Your task to perform on an android device: turn off translation in the chrome app Image 0: 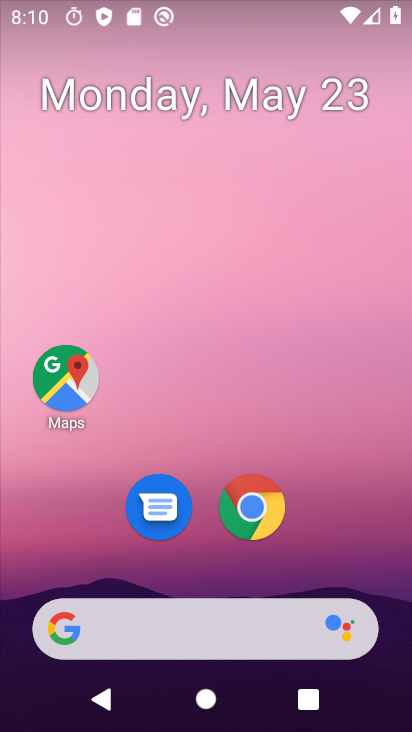
Step 0: click (246, 510)
Your task to perform on an android device: turn off translation in the chrome app Image 1: 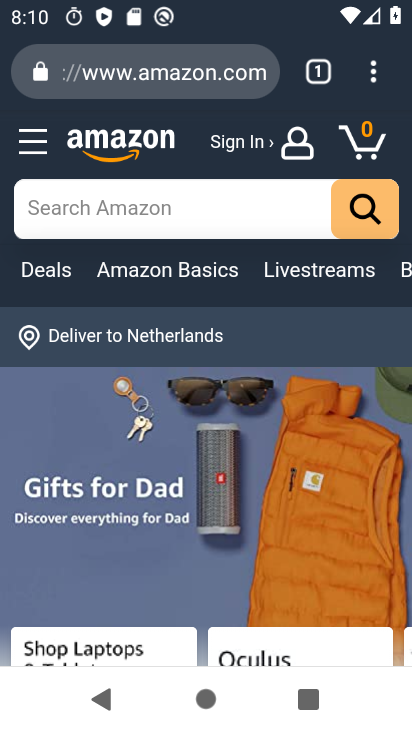
Step 1: drag from (389, 71) to (151, 501)
Your task to perform on an android device: turn off translation in the chrome app Image 2: 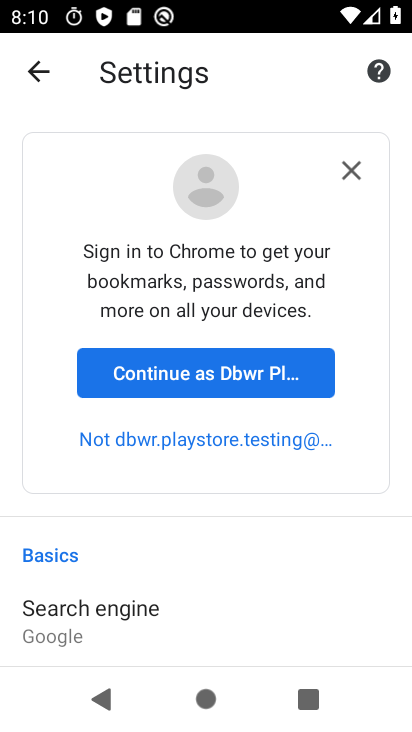
Step 2: drag from (140, 612) to (132, 312)
Your task to perform on an android device: turn off translation in the chrome app Image 3: 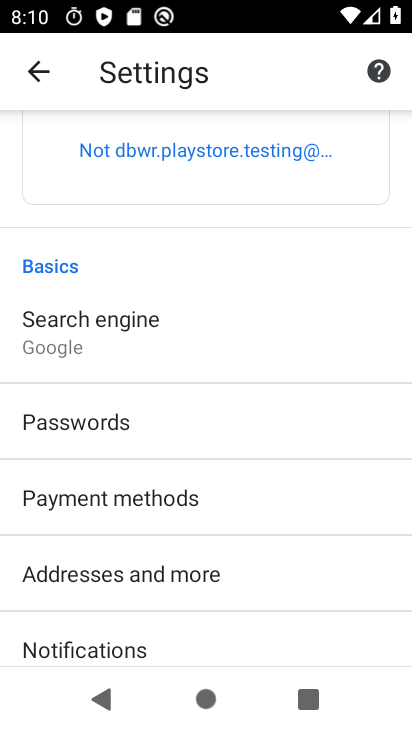
Step 3: drag from (180, 559) to (205, 211)
Your task to perform on an android device: turn off translation in the chrome app Image 4: 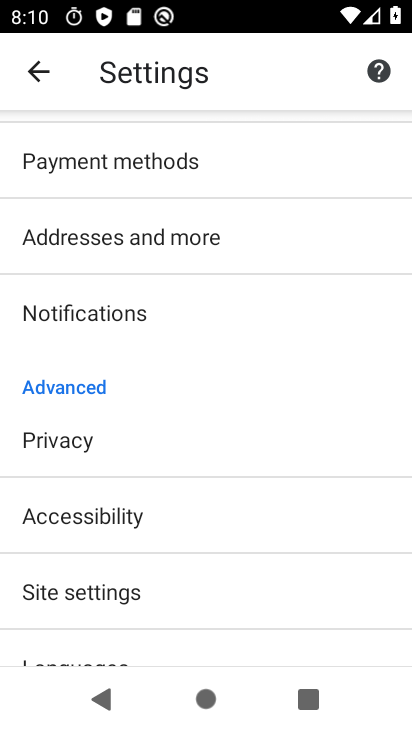
Step 4: drag from (222, 564) to (205, 170)
Your task to perform on an android device: turn off translation in the chrome app Image 5: 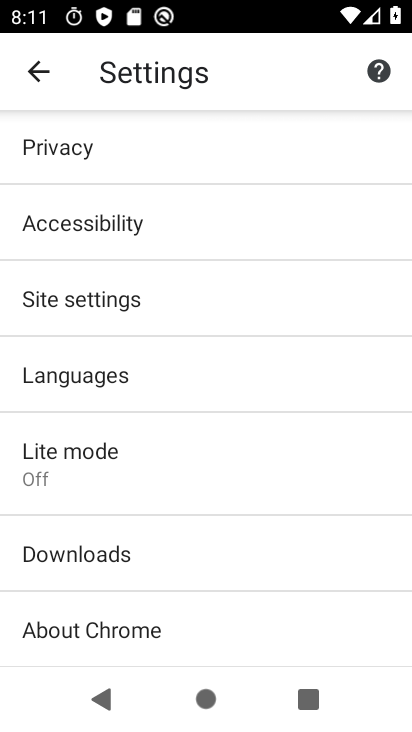
Step 5: click (107, 381)
Your task to perform on an android device: turn off translation in the chrome app Image 6: 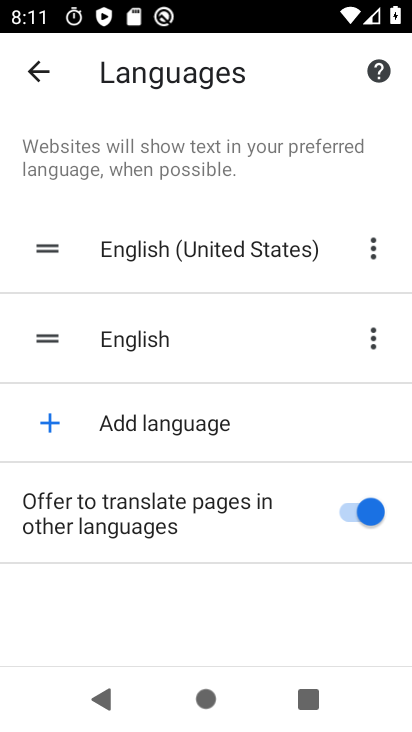
Step 6: click (362, 521)
Your task to perform on an android device: turn off translation in the chrome app Image 7: 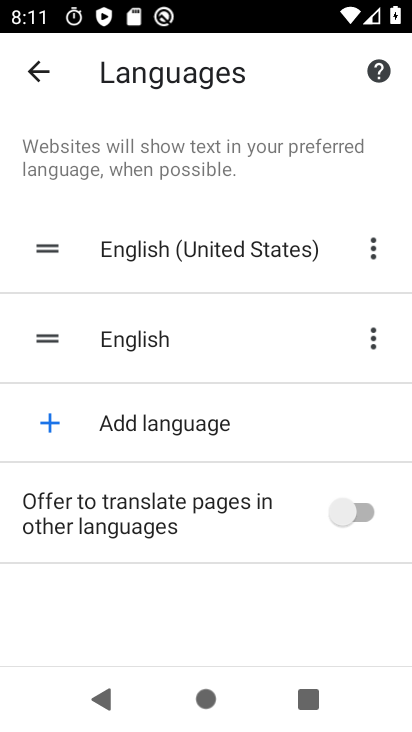
Step 7: task complete